Your task to perform on an android device: Search for Italian restaurants on Maps Image 0: 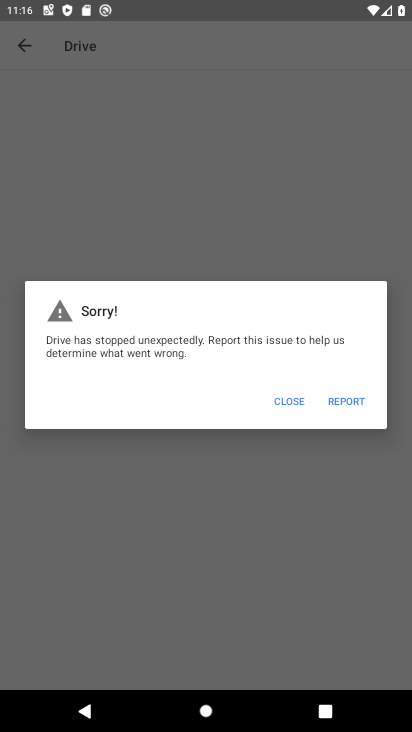
Step 0: press home button
Your task to perform on an android device: Search for Italian restaurants on Maps Image 1: 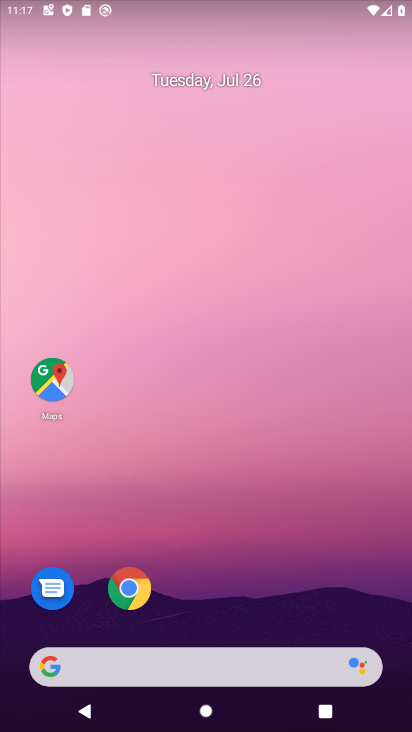
Step 1: drag from (301, 602) to (309, 56)
Your task to perform on an android device: Search for Italian restaurants on Maps Image 2: 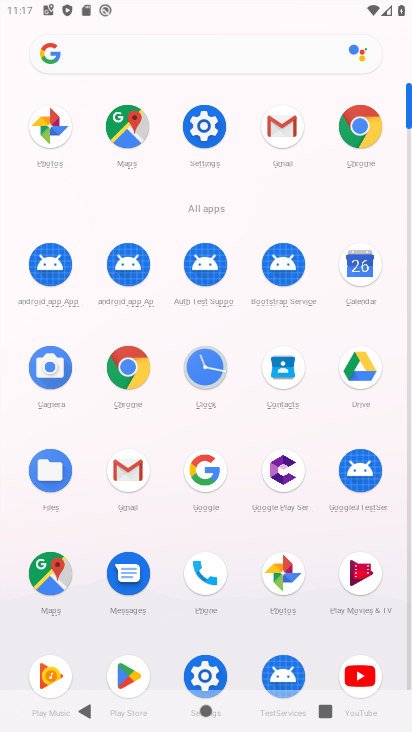
Step 2: click (43, 586)
Your task to perform on an android device: Search for Italian restaurants on Maps Image 3: 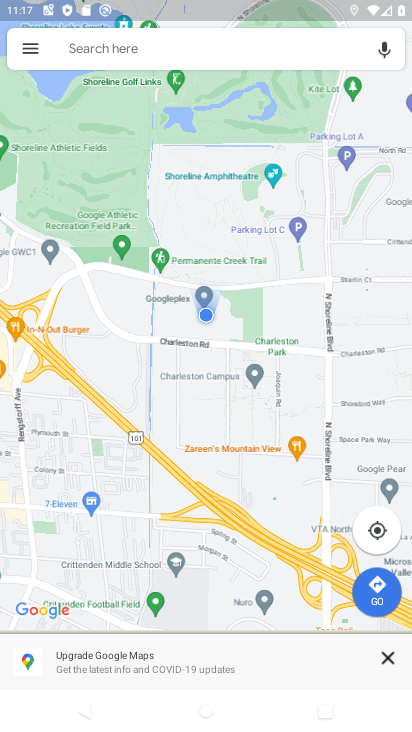
Step 3: click (116, 52)
Your task to perform on an android device: Search for Italian restaurants on Maps Image 4: 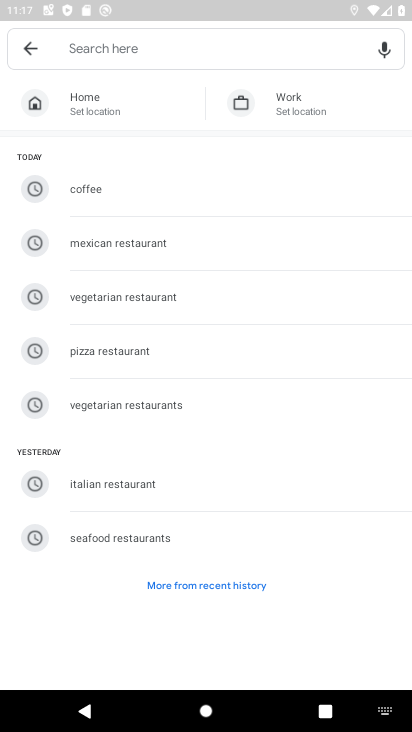
Step 4: type " Italian restaurants "
Your task to perform on an android device: Search for Italian restaurants on Maps Image 5: 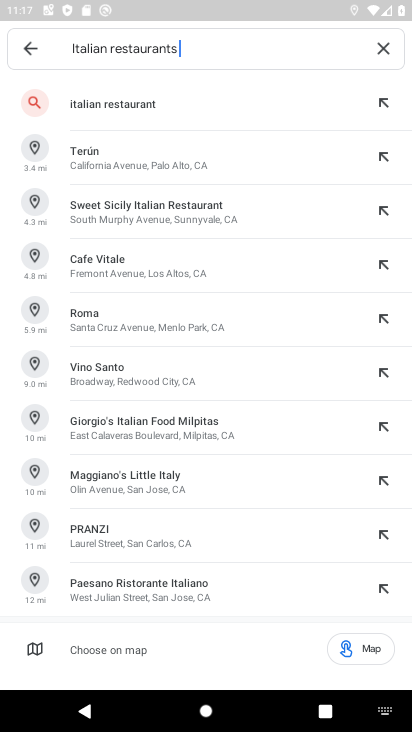
Step 5: click (113, 104)
Your task to perform on an android device: Search for Italian restaurants on Maps Image 6: 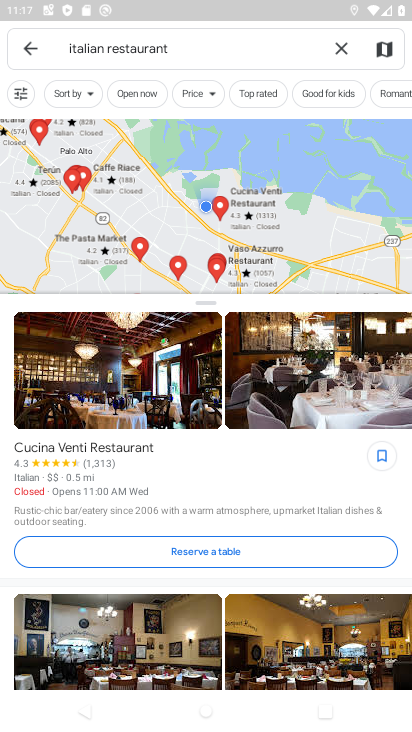
Step 6: task complete